Your task to perform on an android device: What is the recent news? Image 0: 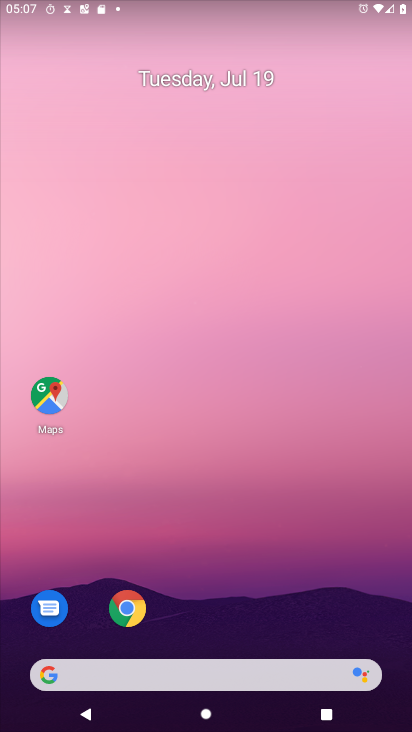
Step 0: drag from (214, 674) to (189, 161)
Your task to perform on an android device: What is the recent news? Image 1: 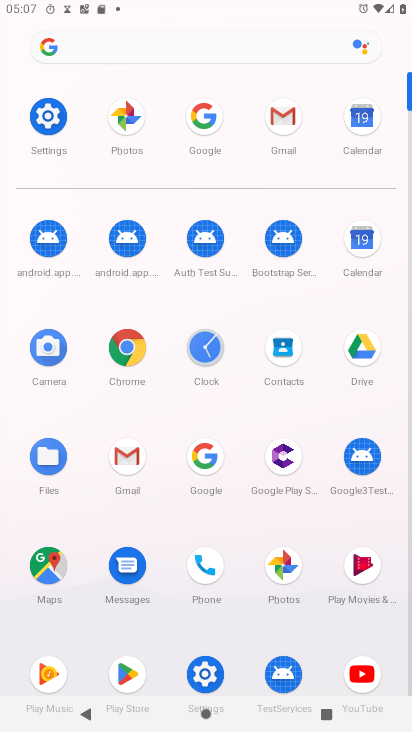
Step 1: click (203, 457)
Your task to perform on an android device: What is the recent news? Image 2: 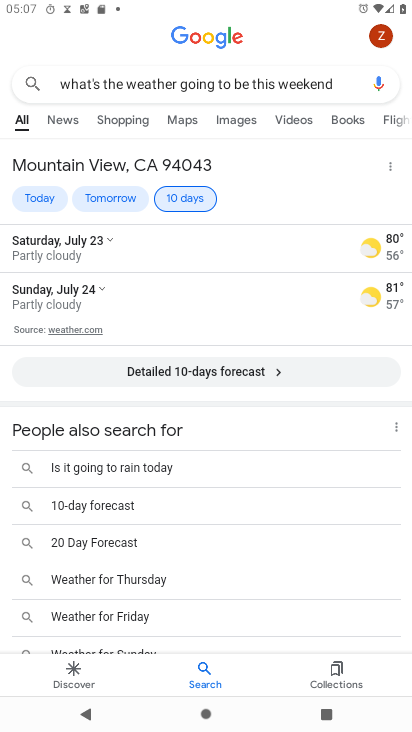
Step 2: click (343, 86)
Your task to perform on an android device: What is the recent news? Image 3: 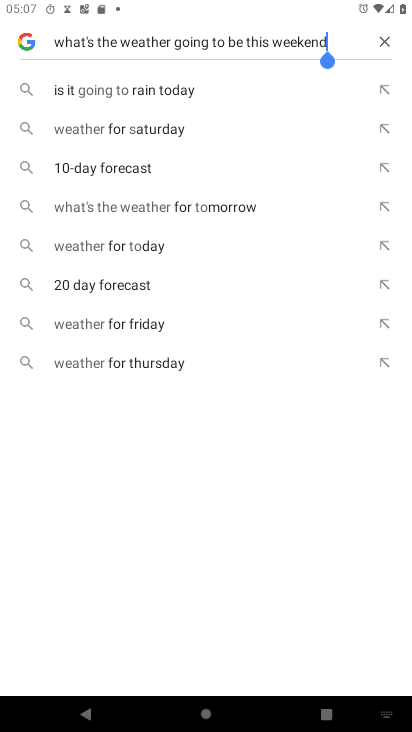
Step 3: click (385, 40)
Your task to perform on an android device: What is the recent news? Image 4: 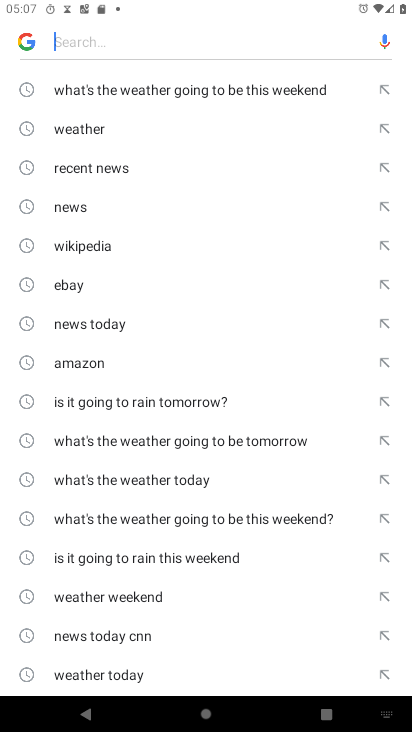
Step 4: click (113, 172)
Your task to perform on an android device: What is the recent news? Image 5: 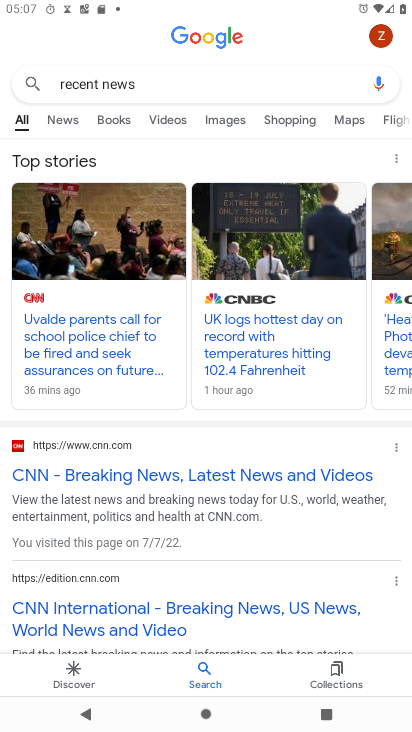
Step 5: click (103, 358)
Your task to perform on an android device: What is the recent news? Image 6: 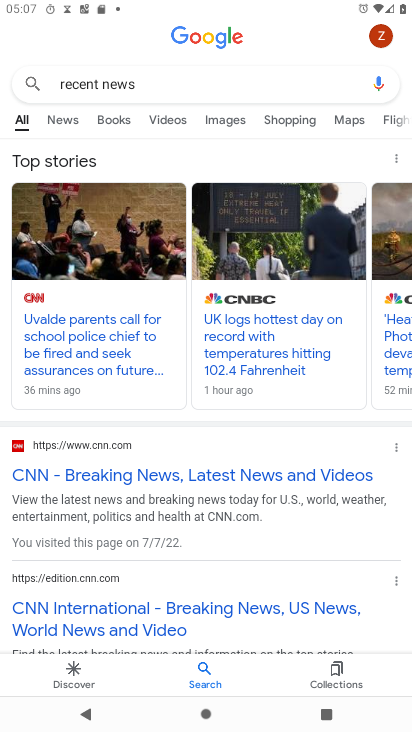
Step 6: click (86, 338)
Your task to perform on an android device: What is the recent news? Image 7: 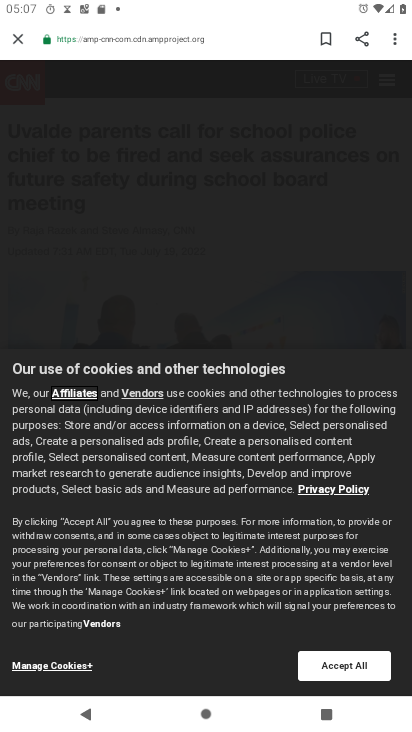
Step 7: click (357, 664)
Your task to perform on an android device: What is the recent news? Image 8: 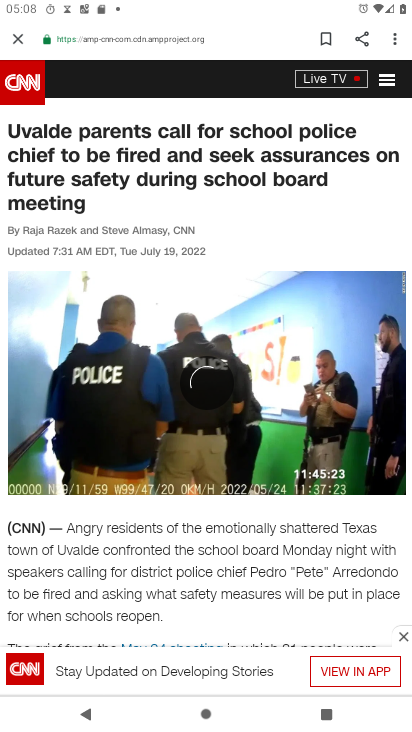
Step 8: task complete